Your task to perform on an android device: Open Yahoo.com Image 0: 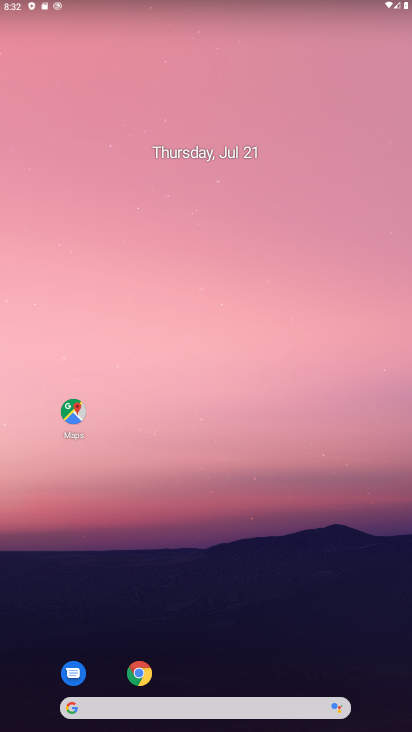
Step 0: click (142, 675)
Your task to perform on an android device: Open Yahoo.com Image 1: 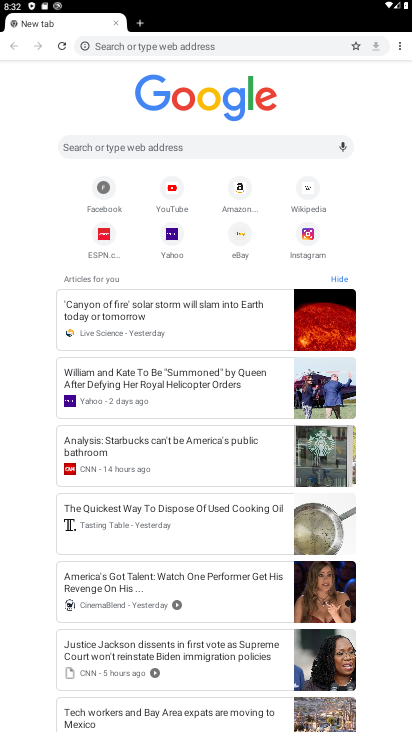
Step 1: click (172, 230)
Your task to perform on an android device: Open Yahoo.com Image 2: 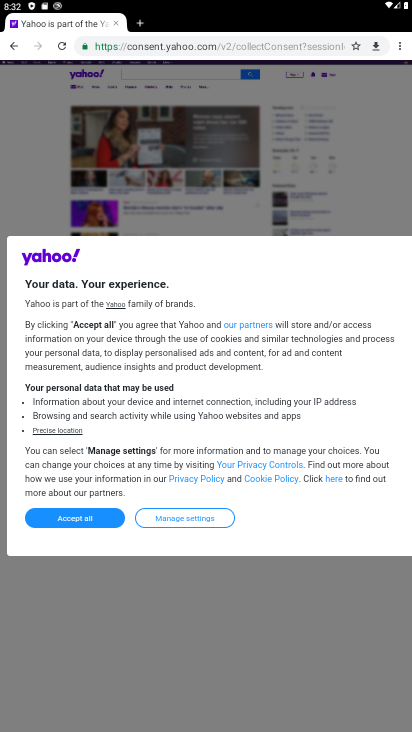
Step 2: click (84, 521)
Your task to perform on an android device: Open Yahoo.com Image 3: 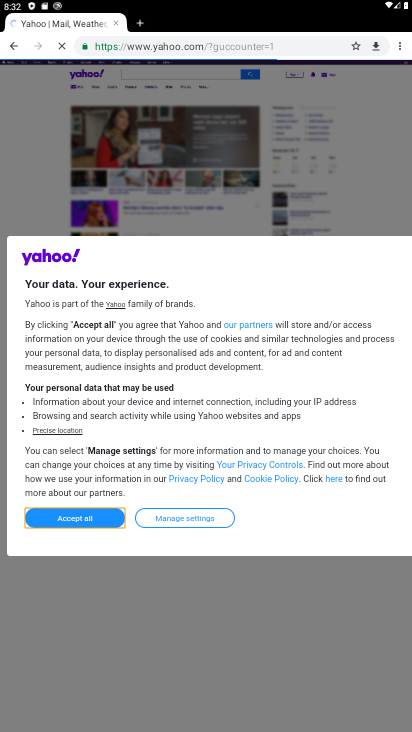
Step 3: click (75, 514)
Your task to perform on an android device: Open Yahoo.com Image 4: 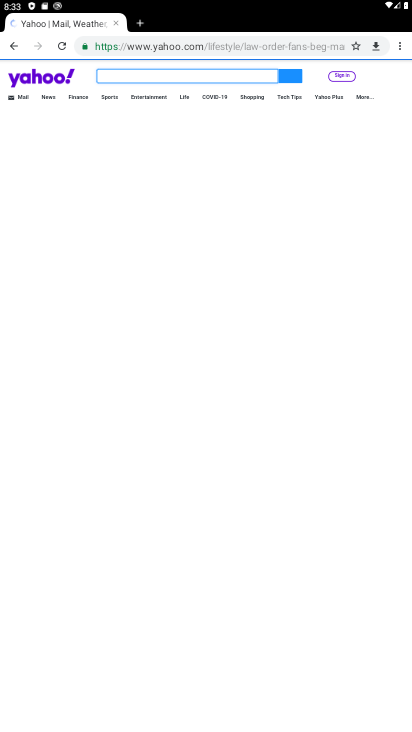
Step 4: task complete